Your task to perform on an android device: Go to Amazon Image 0: 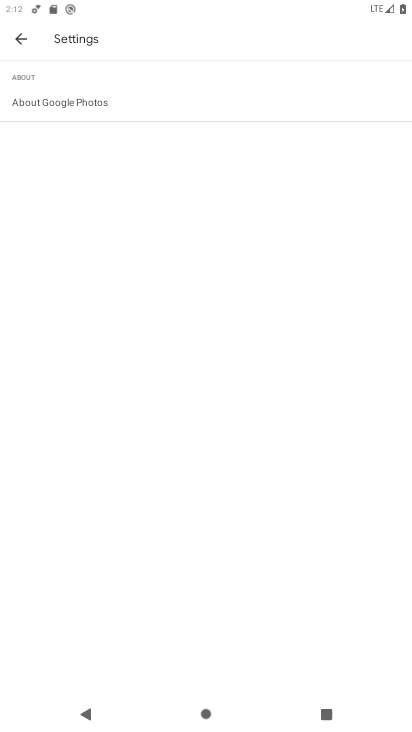
Step 0: press home button
Your task to perform on an android device: Go to Amazon Image 1: 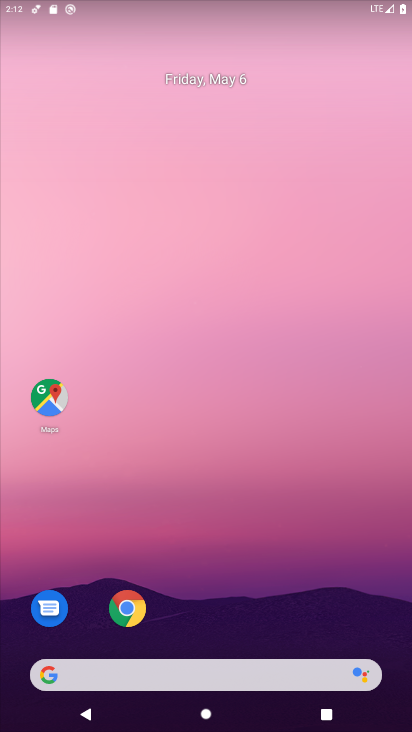
Step 1: click (139, 602)
Your task to perform on an android device: Go to Amazon Image 2: 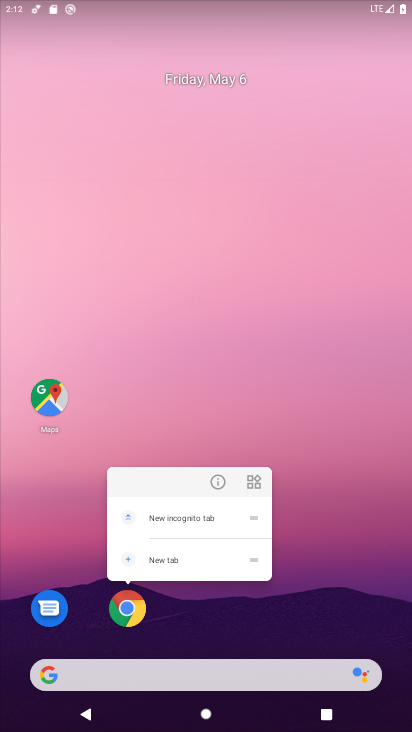
Step 2: click (126, 608)
Your task to perform on an android device: Go to Amazon Image 3: 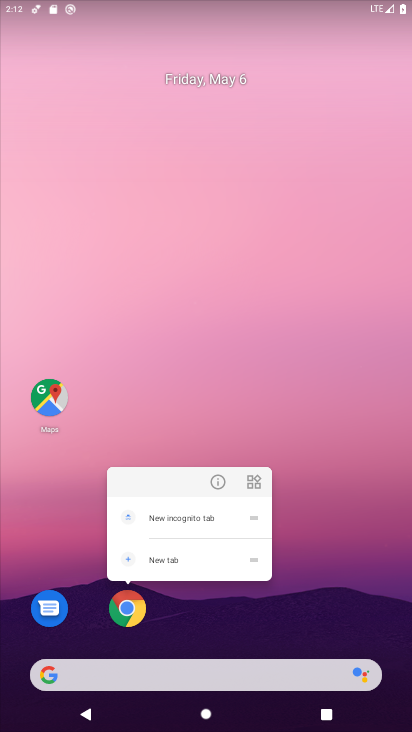
Step 3: click (121, 605)
Your task to perform on an android device: Go to Amazon Image 4: 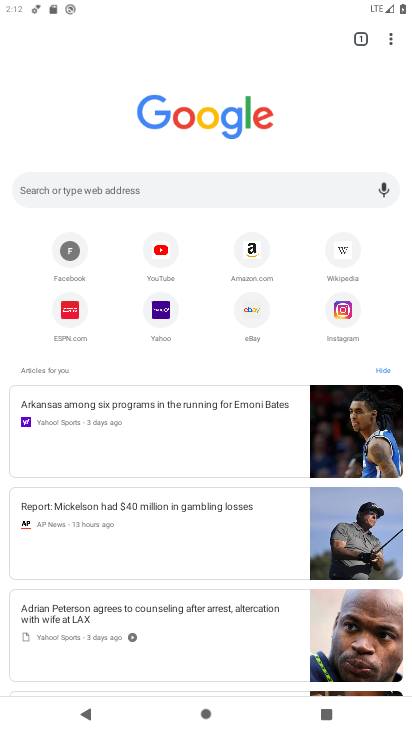
Step 4: click (255, 254)
Your task to perform on an android device: Go to Amazon Image 5: 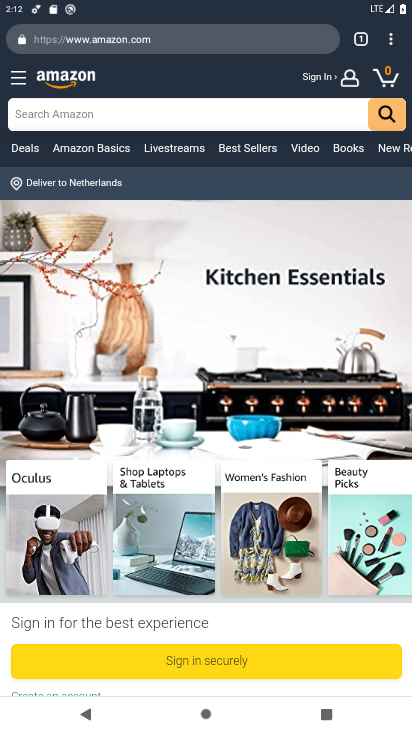
Step 5: task complete